Your task to perform on an android device: change keyboard looks Image 0: 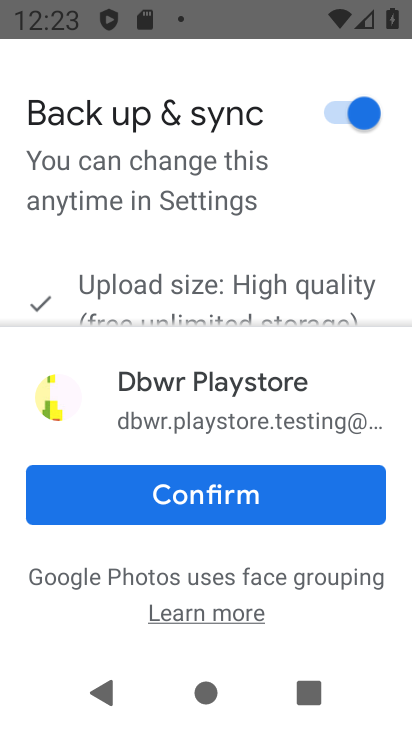
Step 0: press home button
Your task to perform on an android device: change keyboard looks Image 1: 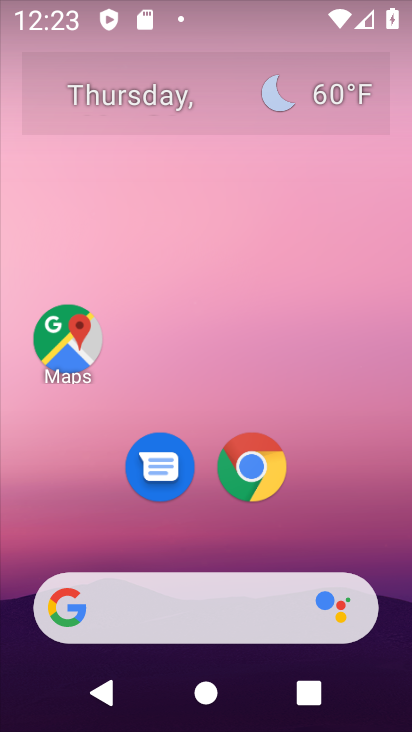
Step 1: drag from (122, 581) to (222, 7)
Your task to perform on an android device: change keyboard looks Image 2: 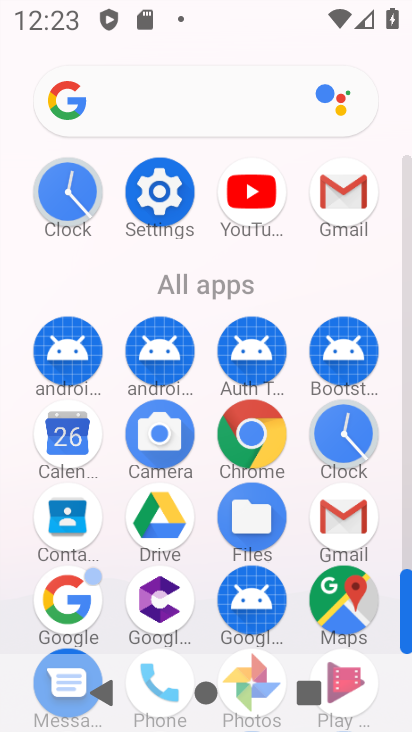
Step 2: click (173, 217)
Your task to perform on an android device: change keyboard looks Image 3: 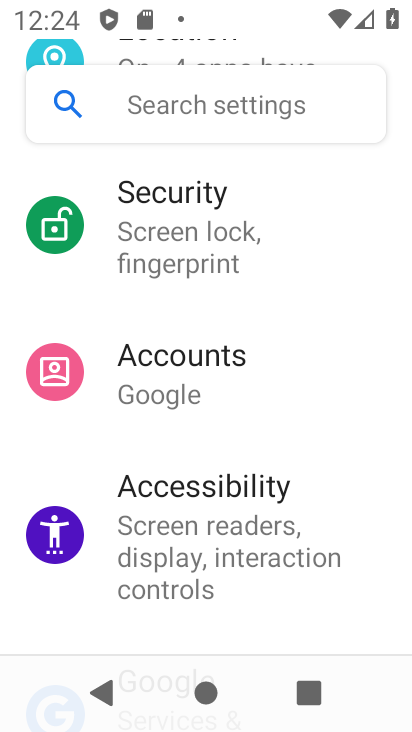
Step 3: drag from (221, 451) to (229, 52)
Your task to perform on an android device: change keyboard looks Image 4: 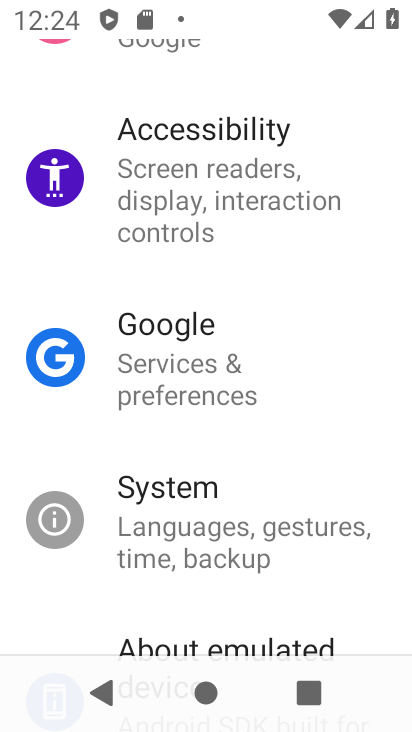
Step 4: drag from (208, 555) to (226, 467)
Your task to perform on an android device: change keyboard looks Image 5: 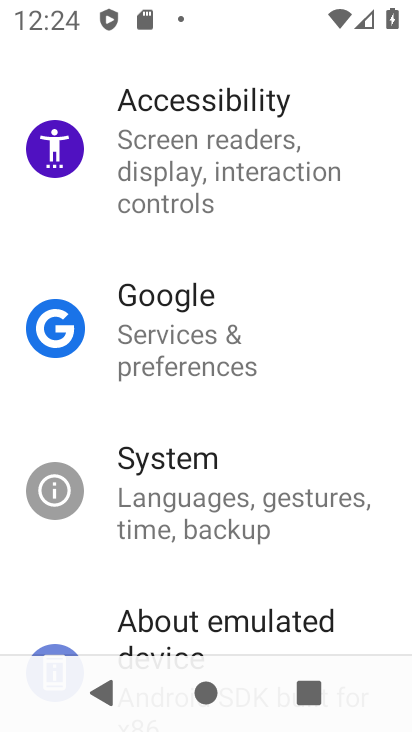
Step 5: click (194, 512)
Your task to perform on an android device: change keyboard looks Image 6: 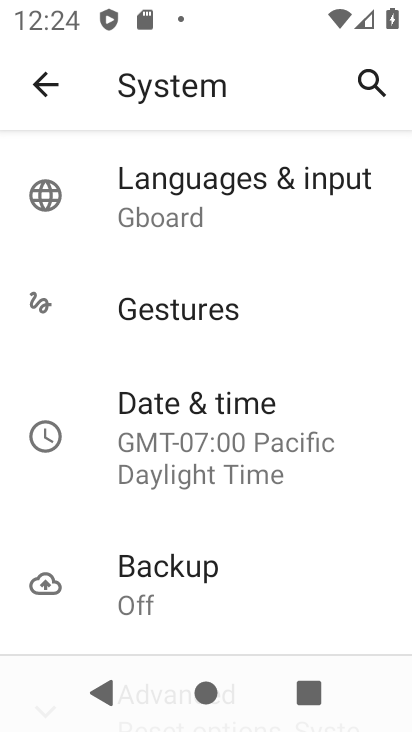
Step 6: click (199, 224)
Your task to perform on an android device: change keyboard looks Image 7: 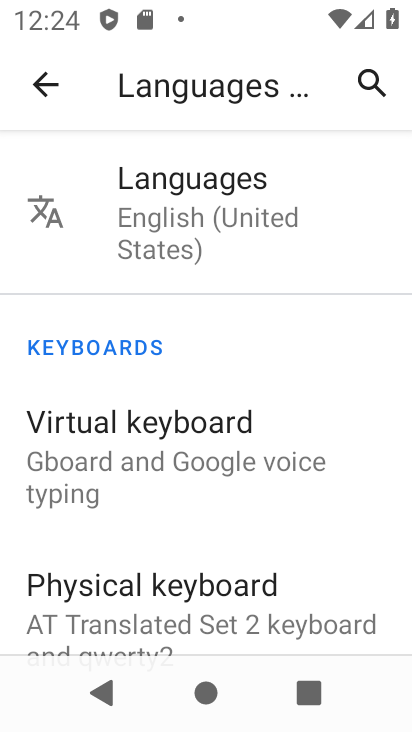
Step 7: click (202, 454)
Your task to perform on an android device: change keyboard looks Image 8: 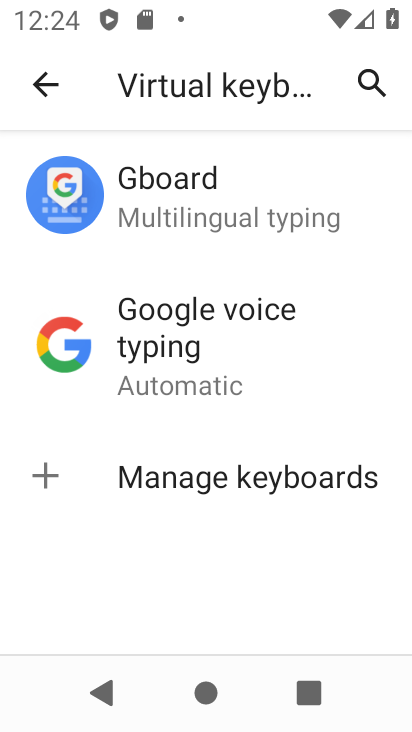
Step 8: click (171, 225)
Your task to perform on an android device: change keyboard looks Image 9: 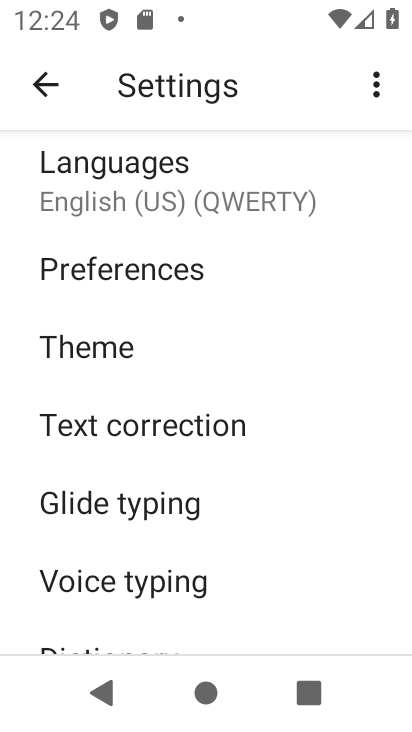
Step 9: click (147, 361)
Your task to perform on an android device: change keyboard looks Image 10: 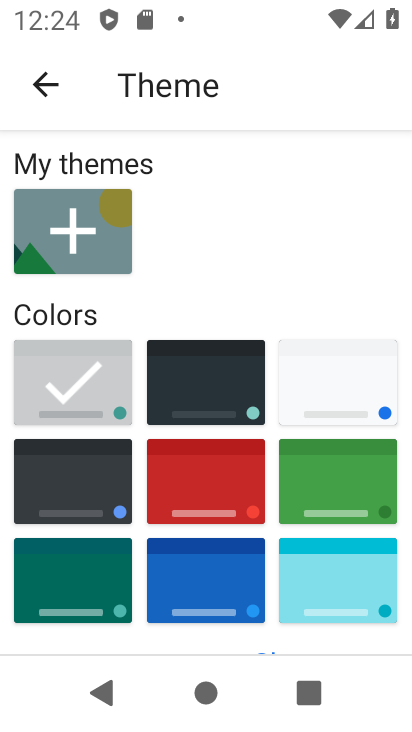
Step 10: click (205, 396)
Your task to perform on an android device: change keyboard looks Image 11: 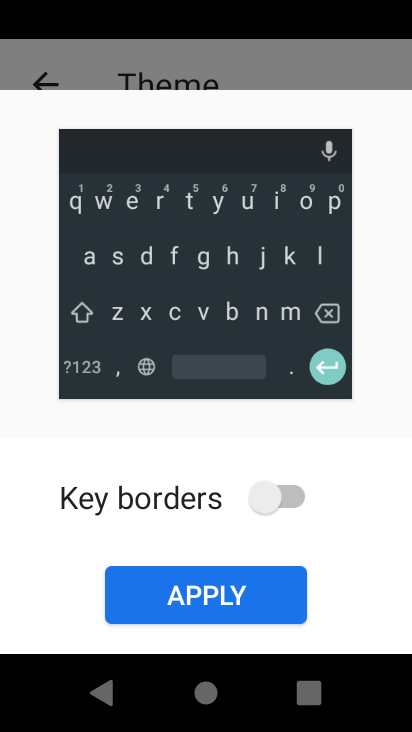
Step 11: click (209, 595)
Your task to perform on an android device: change keyboard looks Image 12: 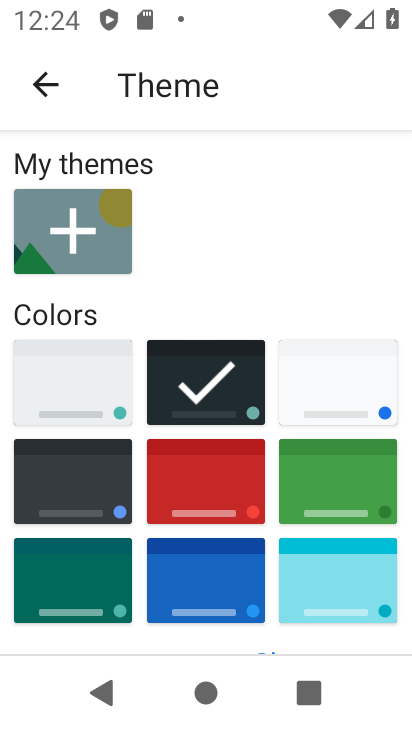
Step 12: task complete